Your task to perform on an android device: Clear all items from cart on walmart.com. Add "dell xps" to the cart on walmart.com, then select checkout. Image 0: 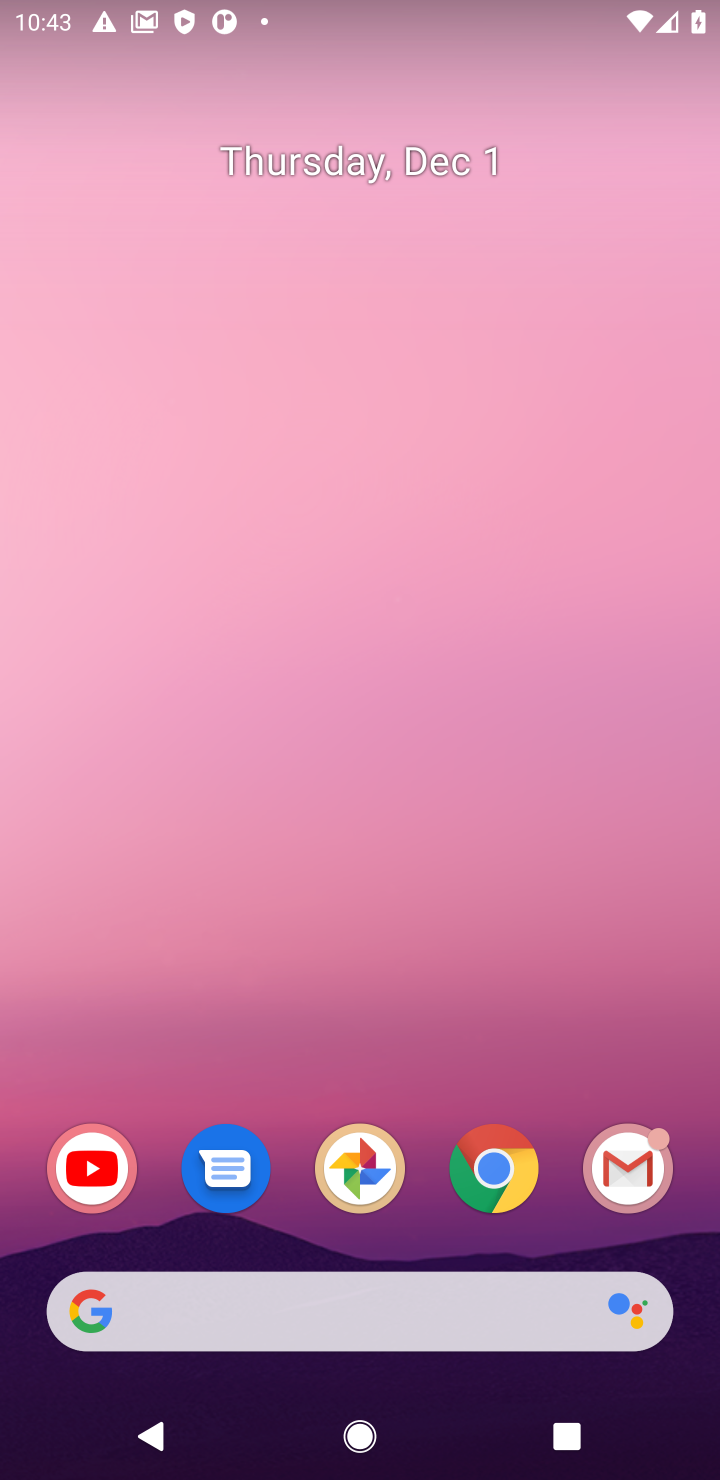
Step 0: click (499, 1165)
Your task to perform on an android device: Clear all items from cart on walmart.com. Add "dell xps" to the cart on walmart.com, then select checkout. Image 1: 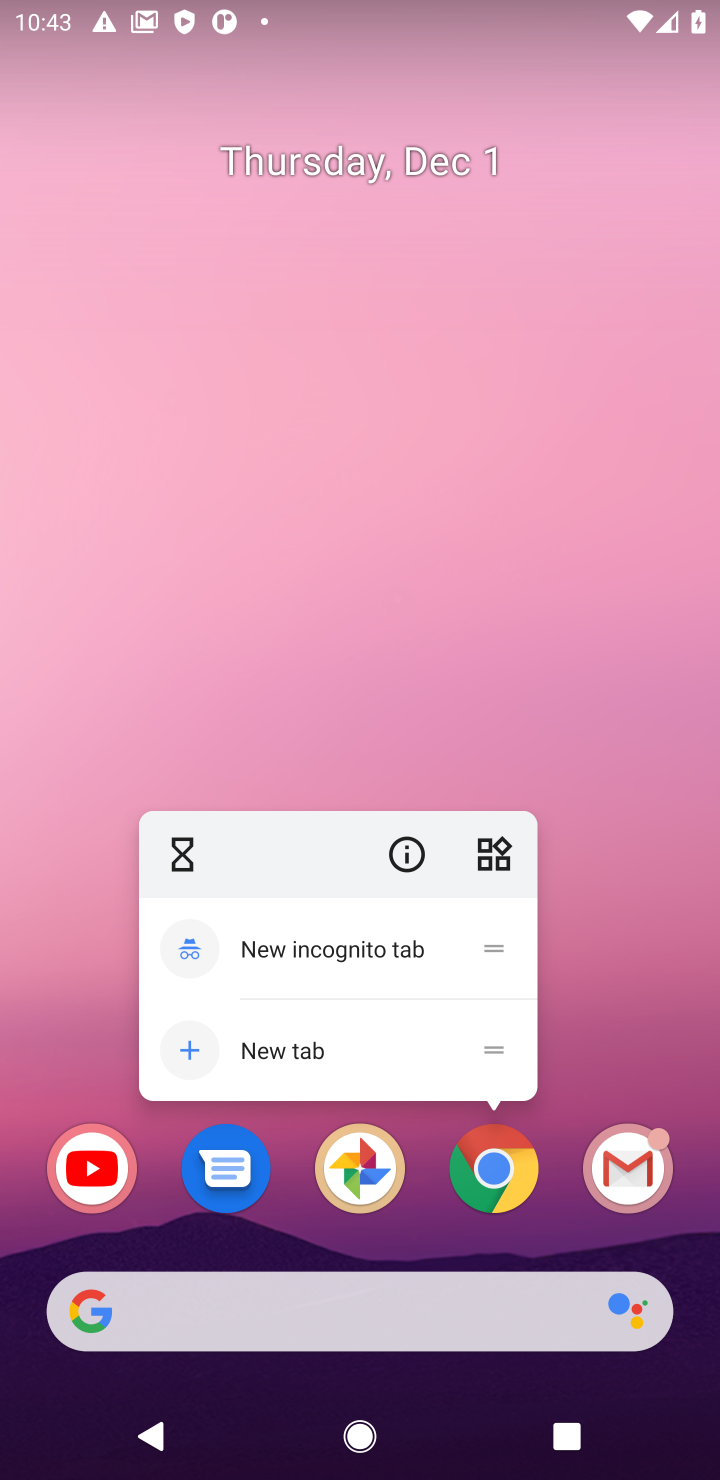
Step 1: click (495, 1189)
Your task to perform on an android device: Clear all items from cart on walmart.com. Add "dell xps" to the cart on walmart.com, then select checkout. Image 2: 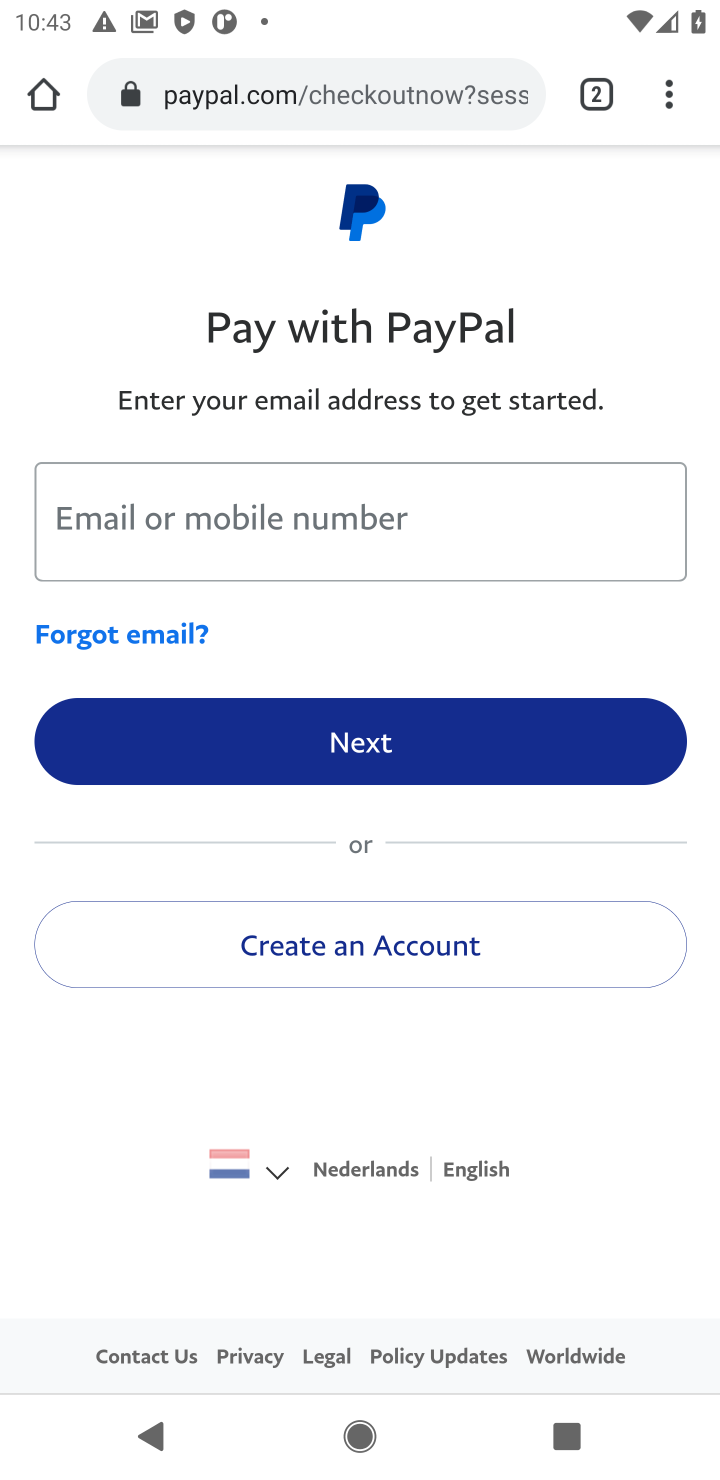
Step 2: click (295, 98)
Your task to perform on an android device: Clear all items from cart on walmart.com. Add "dell xps" to the cart on walmart.com, then select checkout. Image 3: 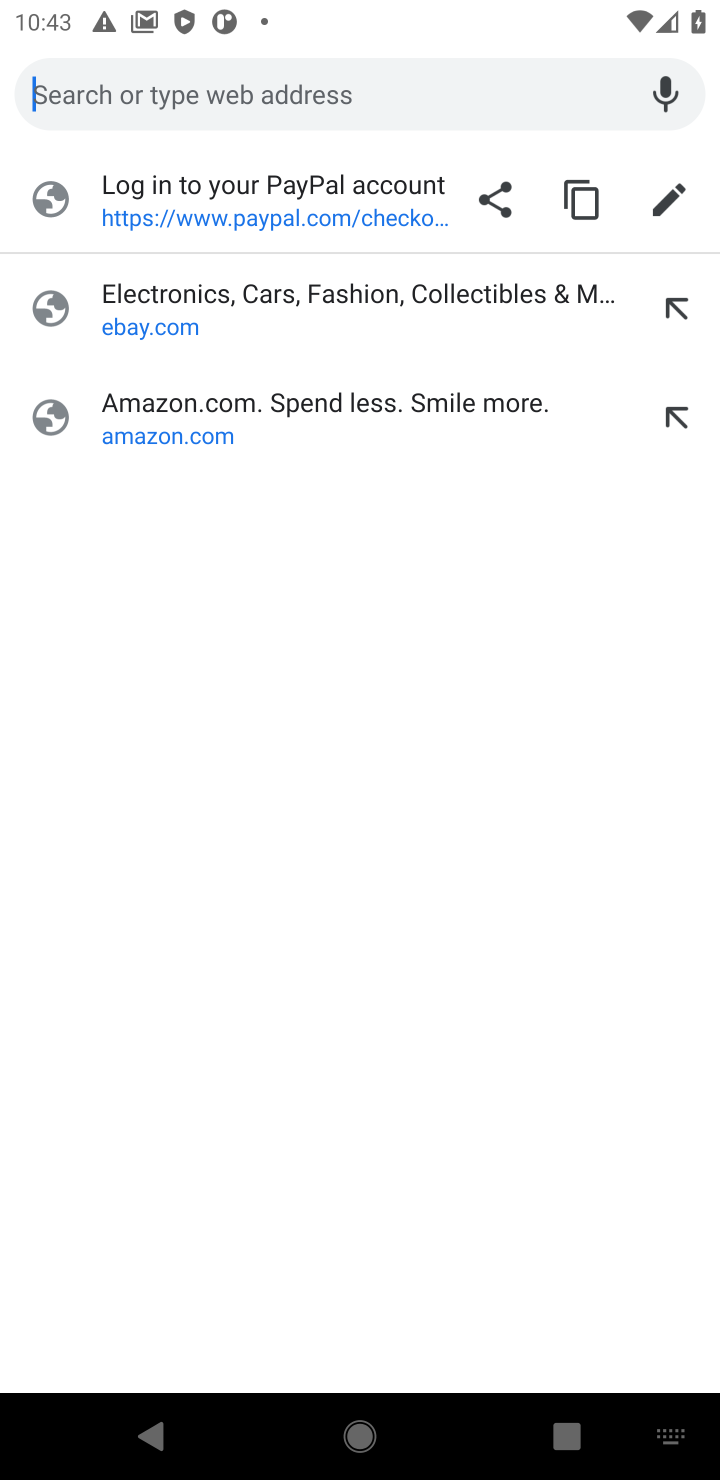
Step 3: type "walmart.com"
Your task to perform on an android device: Clear all items from cart on walmart.com. Add "dell xps" to the cart on walmart.com, then select checkout. Image 4: 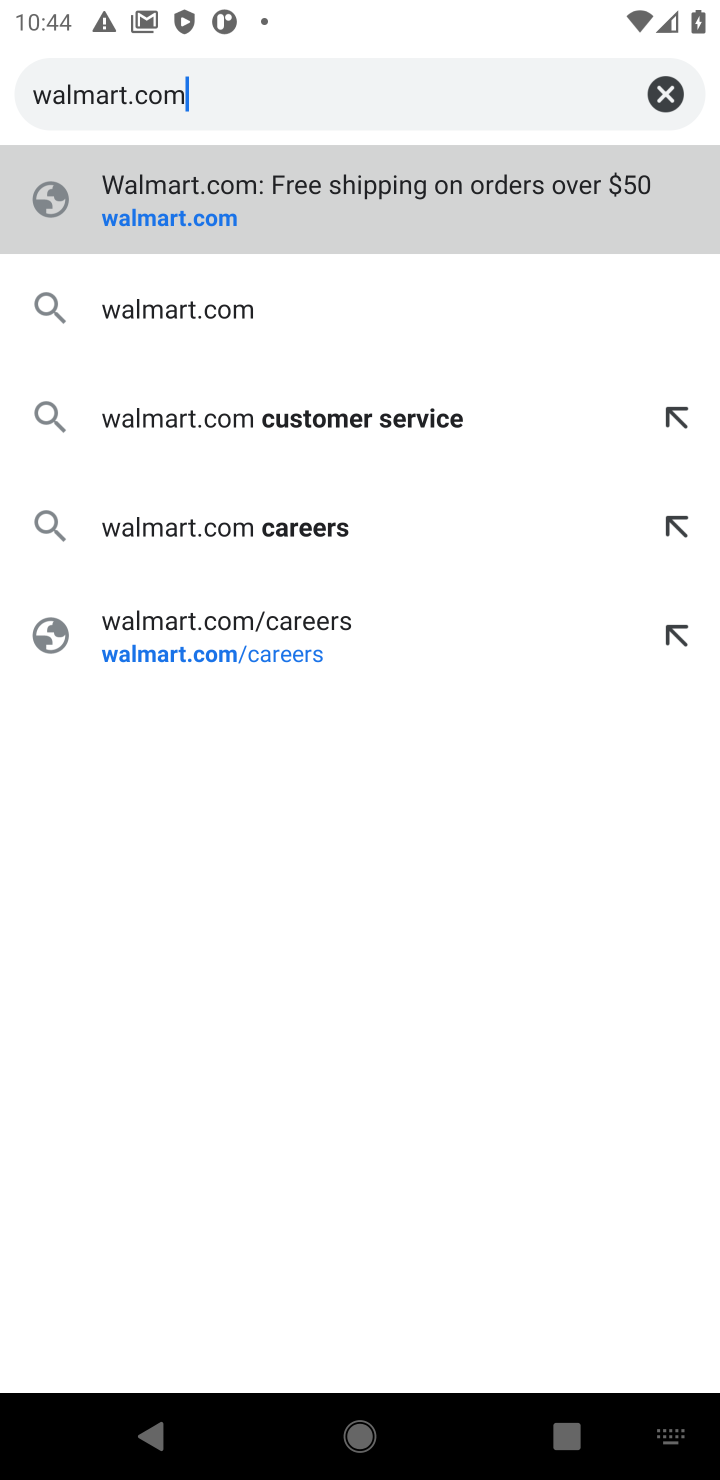
Step 4: click (187, 210)
Your task to perform on an android device: Clear all items from cart on walmart.com. Add "dell xps" to the cart on walmart.com, then select checkout. Image 5: 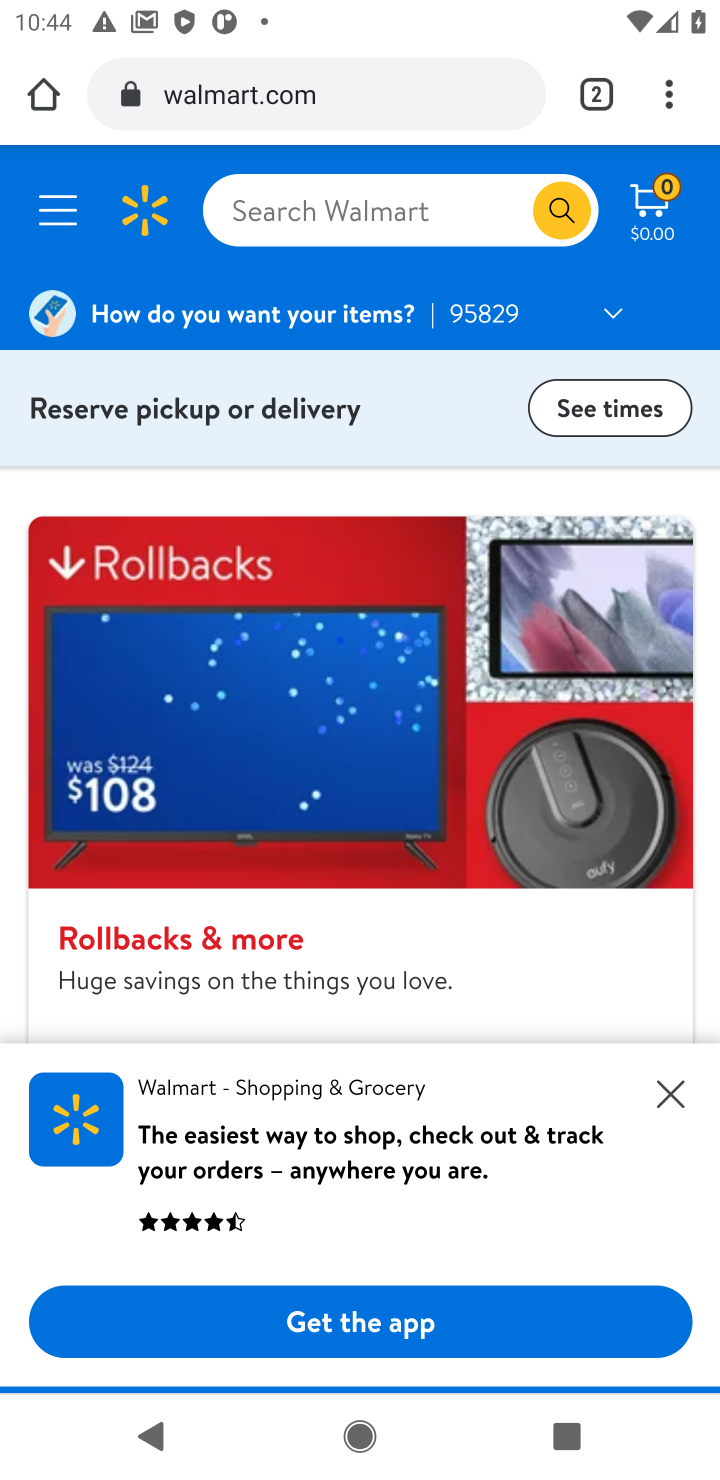
Step 5: click (650, 213)
Your task to perform on an android device: Clear all items from cart on walmart.com. Add "dell xps" to the cart on walmart.com, then select checkout. Image 6: 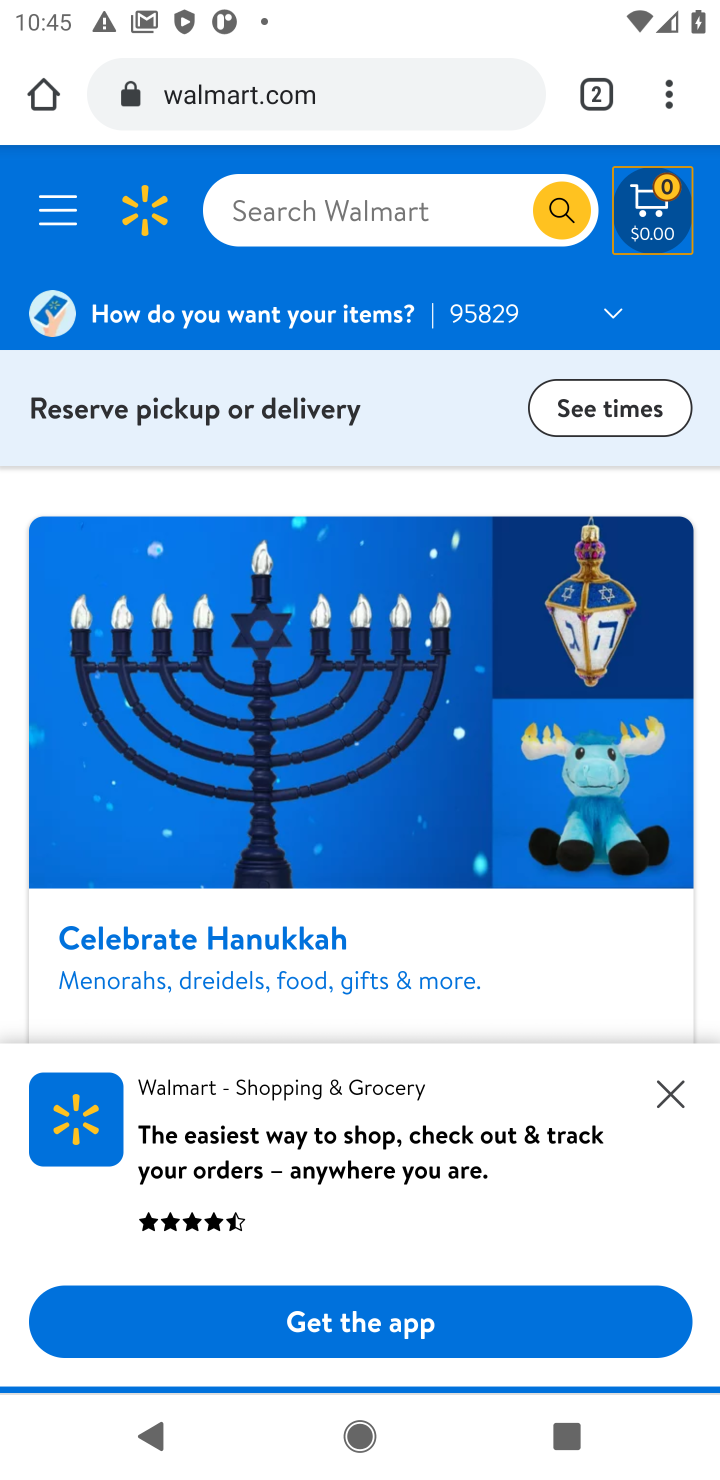
Step 6: click (643, 234)
Your task to perform on an android device: Clear all items from cart on walmart.com. Add "dell xps" to the cart on walmart.com, then select checkout. Image 7: 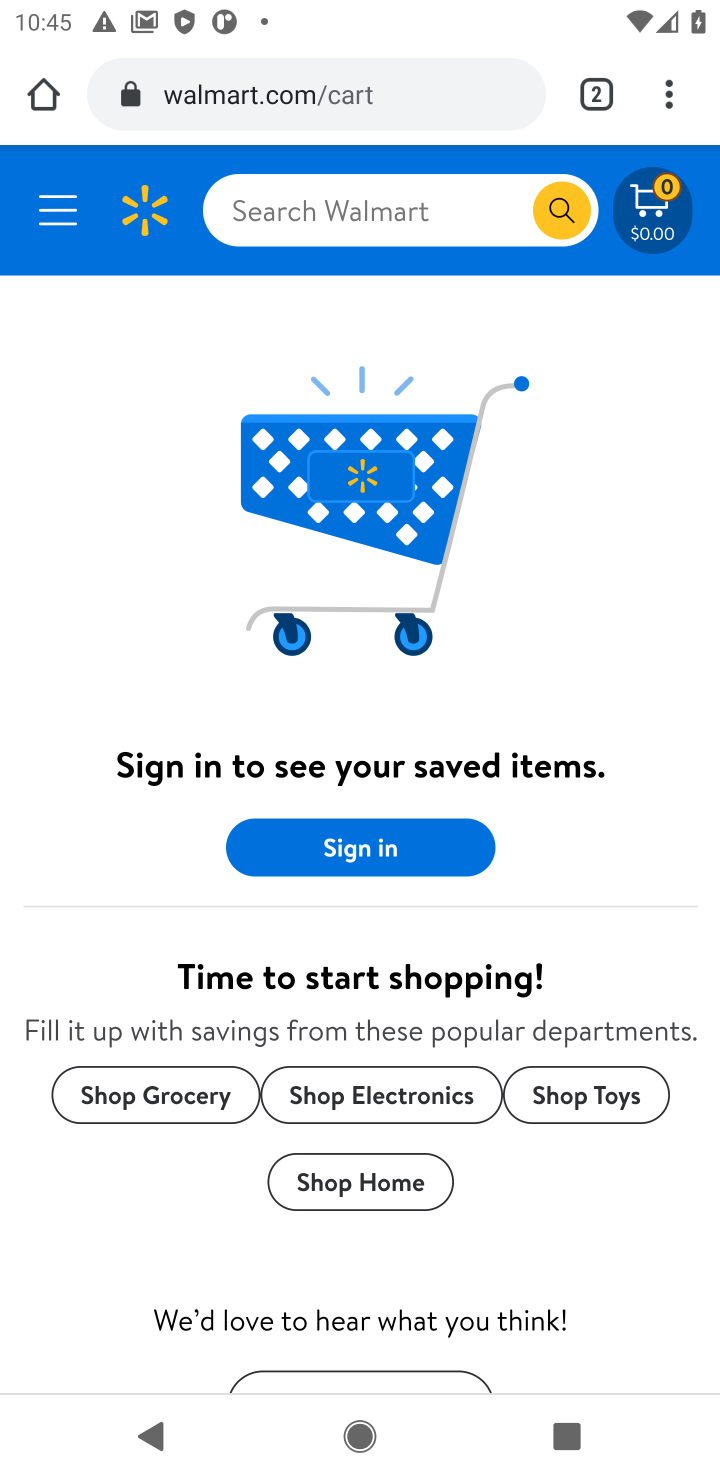
Step 7: click (309, 223)
Your task to perform on an android device: Clear all items from cart on walmart.com. Add "dell xps" to the cart on walmart.com, then select checkout. Image 8: 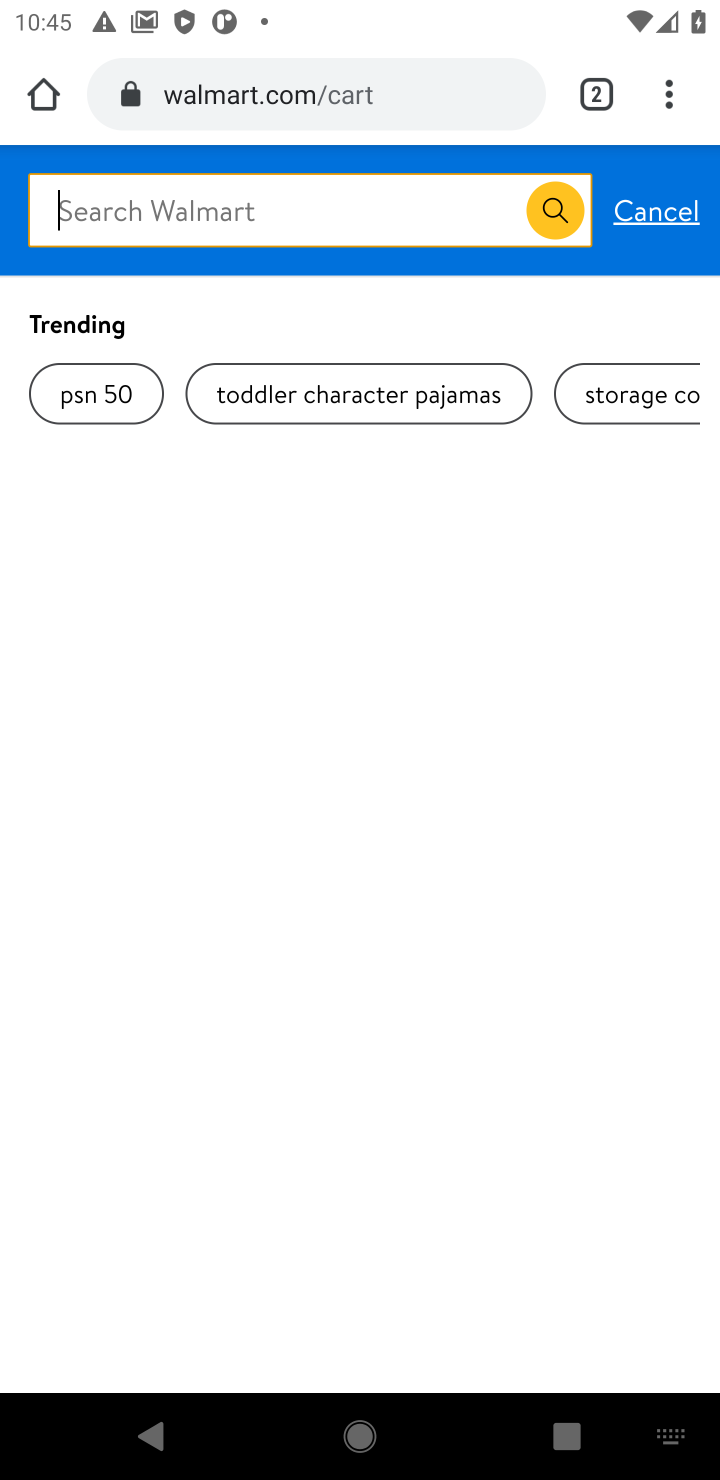
Step 8: type "dell xps"
Your task to perform on an android device: Clear all items from cart on walmart.com. Add "dell xps" to the cart on walmart.com, then select checkout. Image 9: 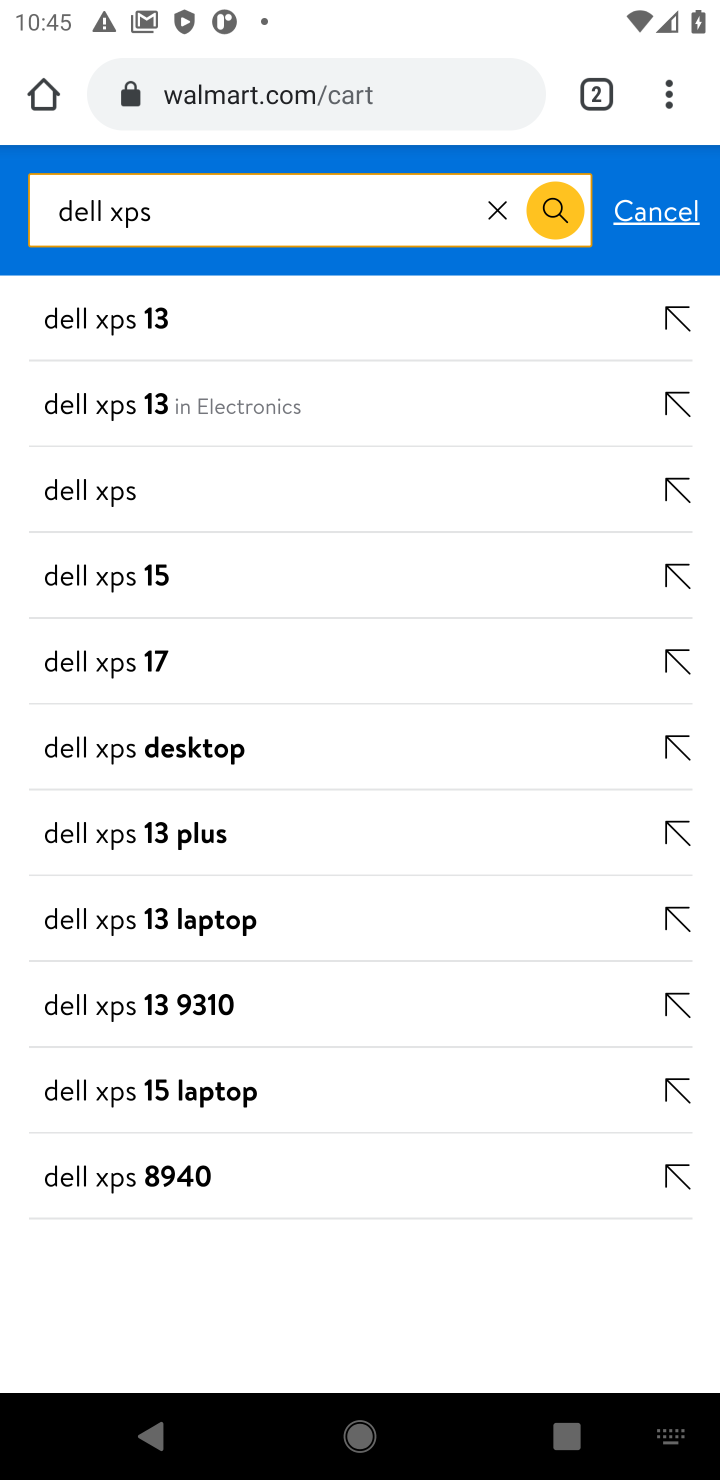
Step 9: click (72, 499)
Your task to perform on an android device: Clear all items from cart on walmart.com. Add "dell xps" to the cart on walmart.com, then select checkout. Image 10: 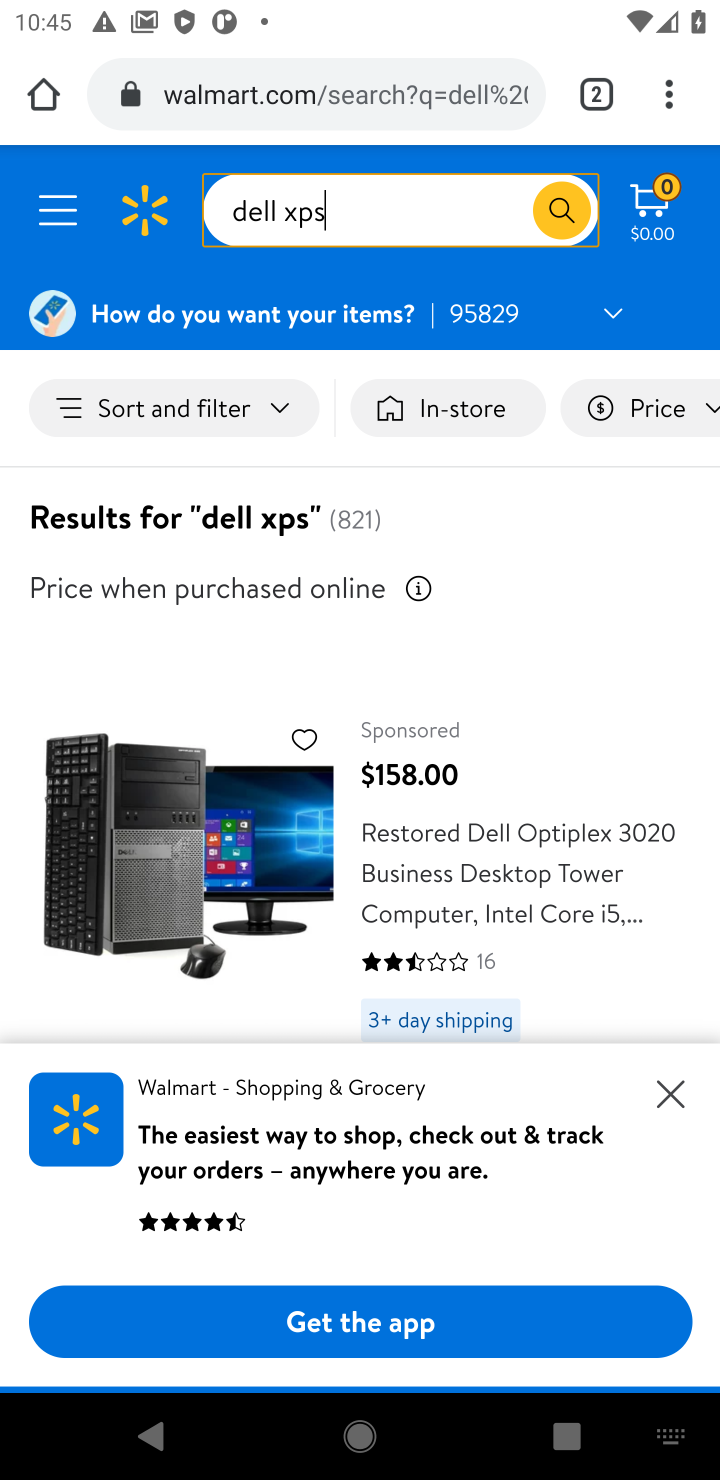
Step 10: click (681, 1099)
Your task to perform on an android device: Clear all items from cart on walmart.com. Add "dell xps" to the cart on walmart.com, then select checkout. Image 11: 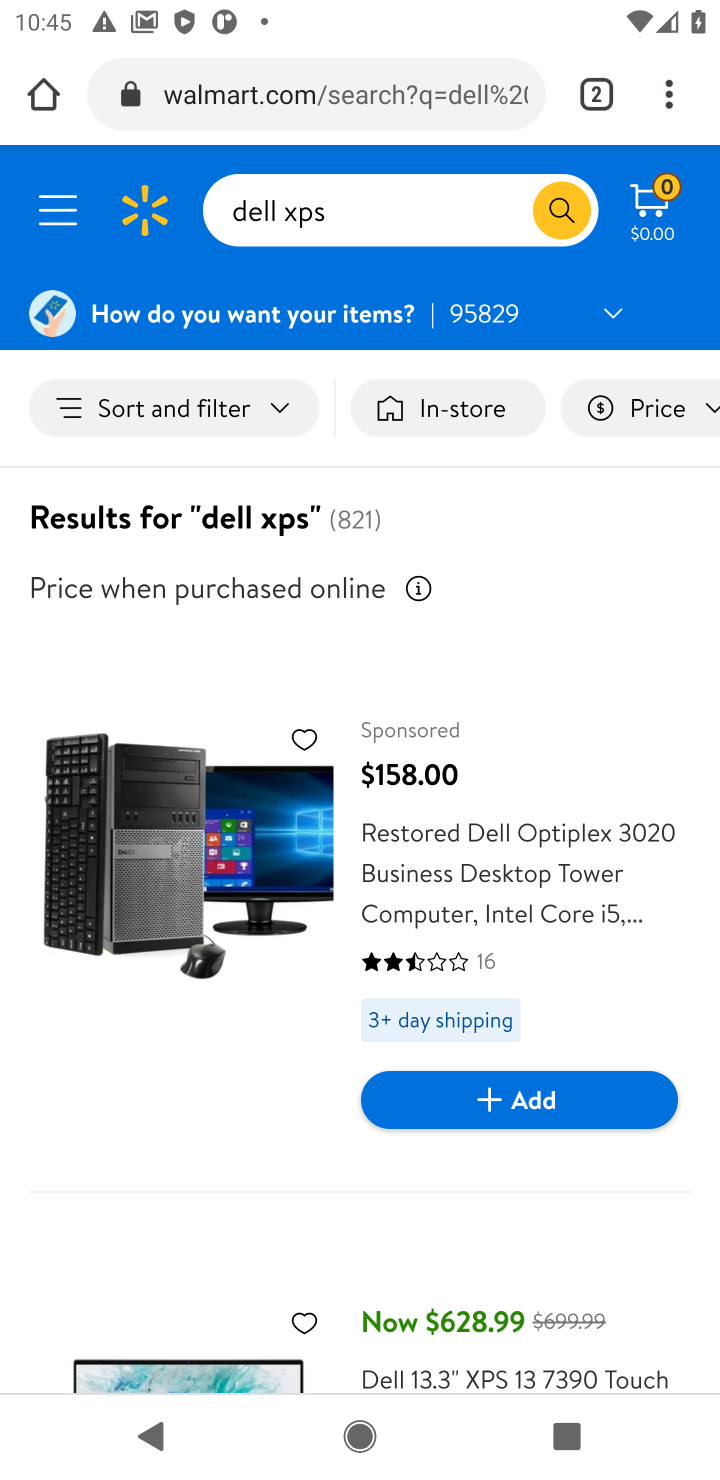
Step 11: drag from (295, 976) to (286, 447)
Your task to perform on an android device: Clear all items from cart on walmart.com. Add "dell xps" to the cart on walmart.com, then select checkout. Image 12: 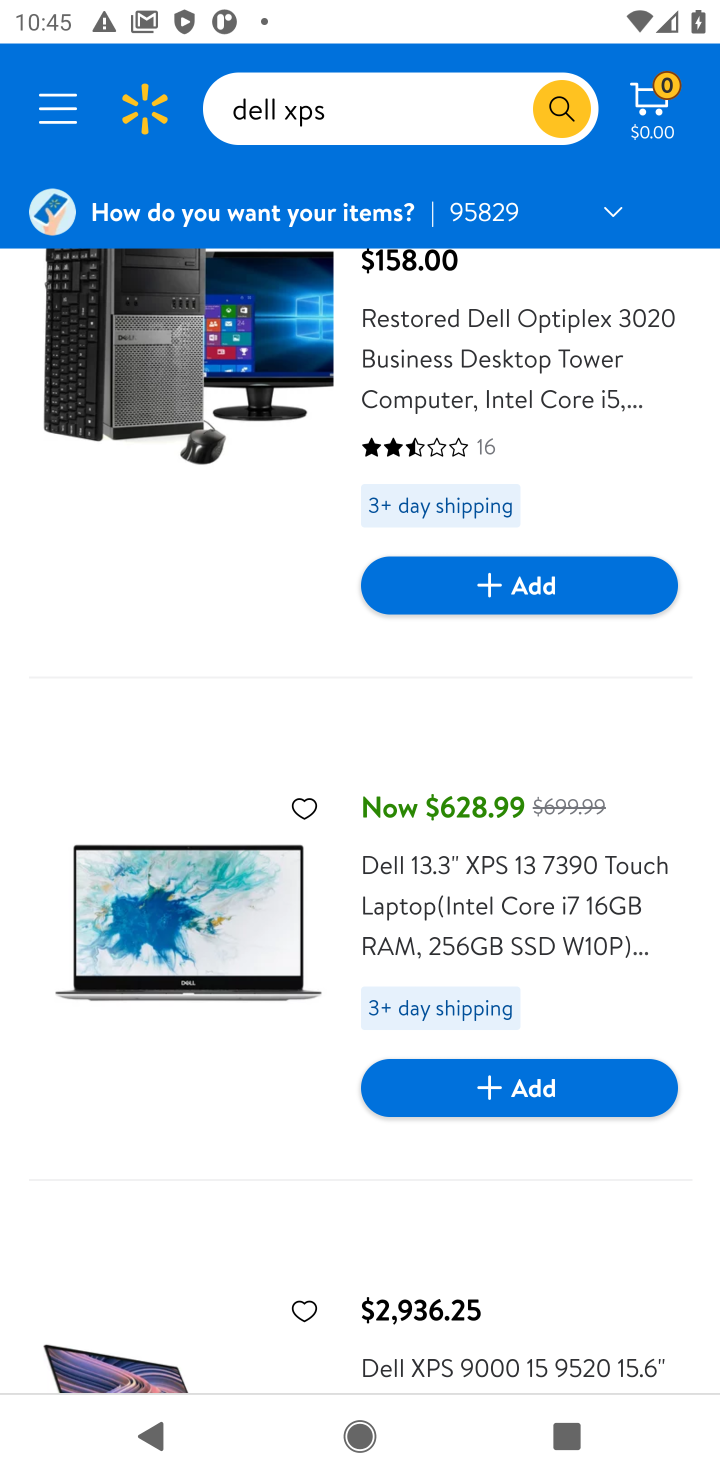
Step 12: click (536, 1084)
Your task to perform on an android device: Clear all items from cart on walmart.com. Add "dell xps" to the cart on walmart.com, then select checkout. Image 13: 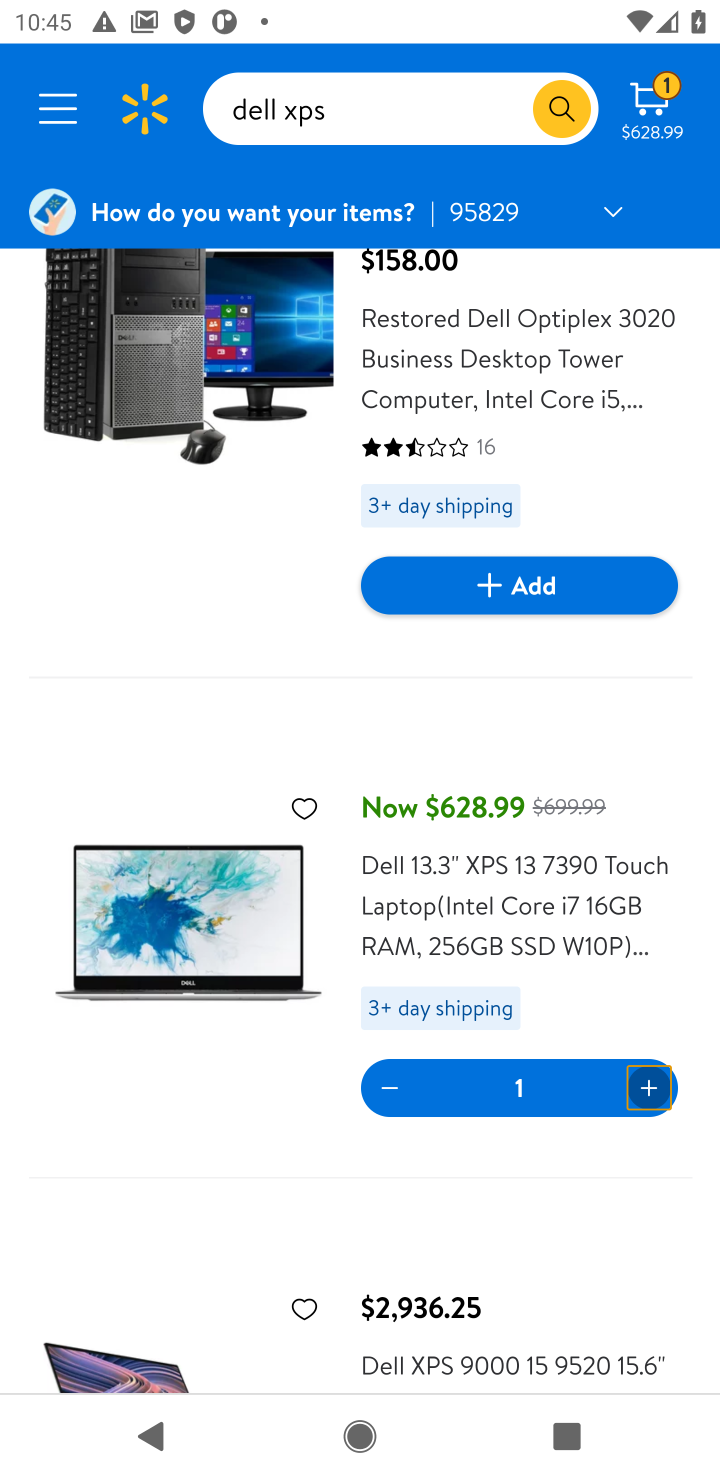
Step 13: click (650, 104)
Your task to perform on an android device: Clear all items from cart on walmart.com. Add "dell xps" to the cart on walmart.com, then select checkout. Image 14: 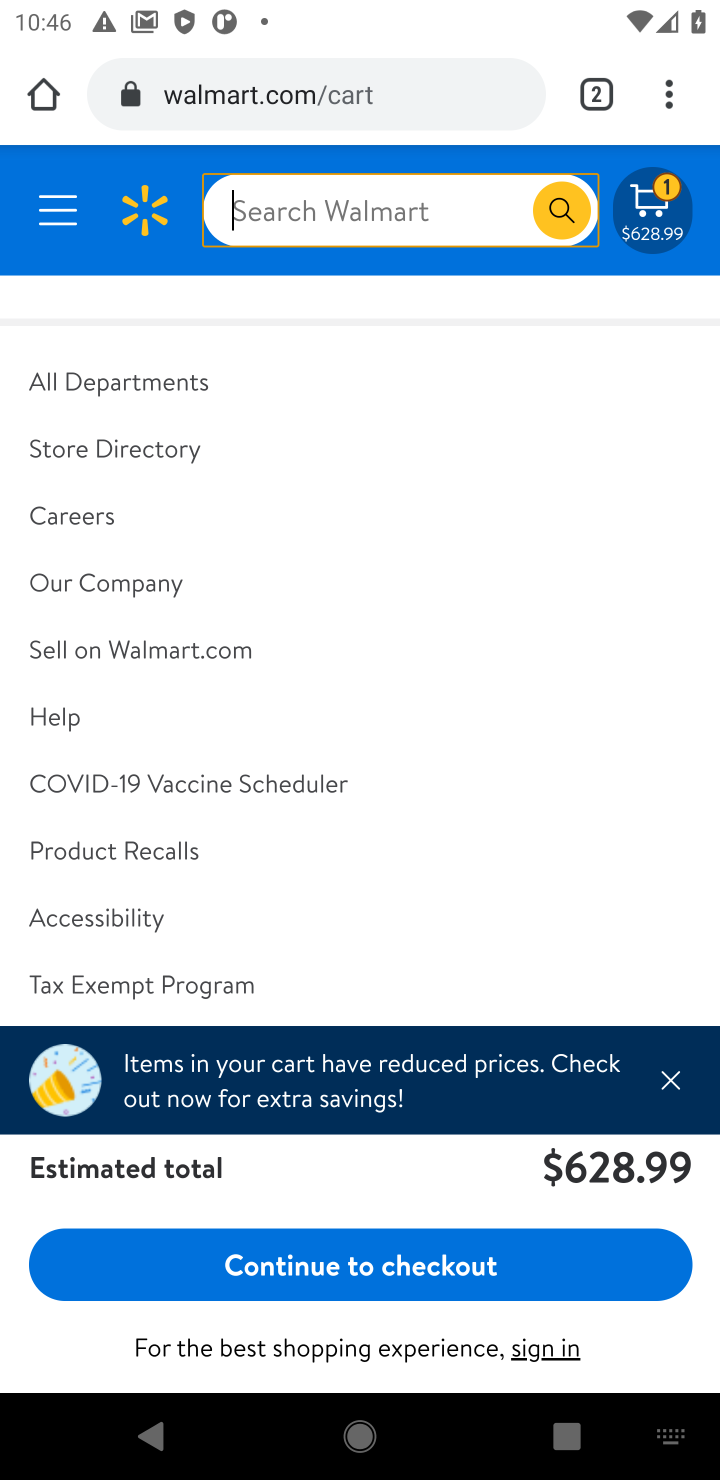
Step 14: click (339, 1258)
Your task to perform on an android device: Clear all items from cart on walmart.com. Add "dell xps" to the cart on walmart.com, then select checkout. Image 15: 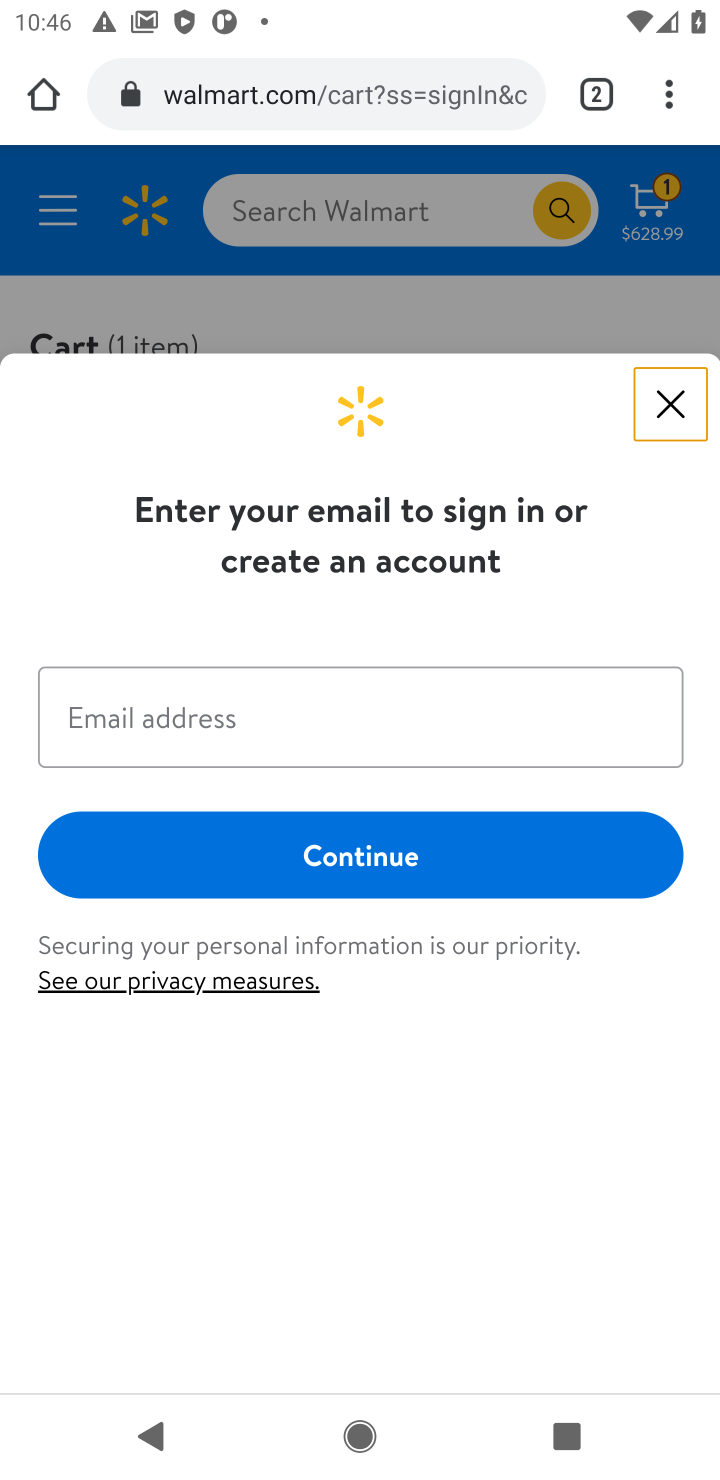
Step 15: task complete